Your task to perform on an android device: open sync settings in chrome Image 0: 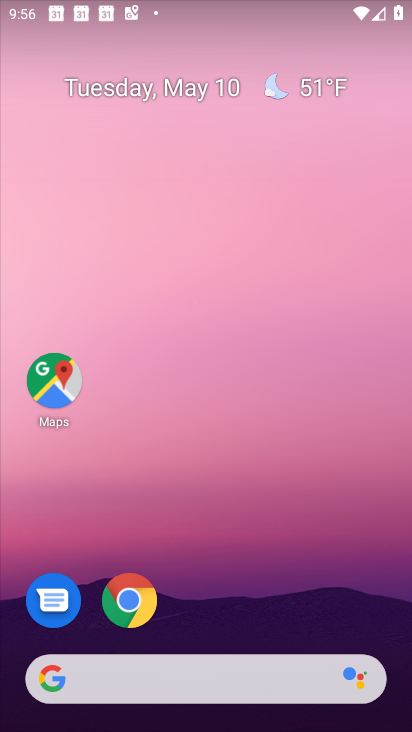
Step 0: click (132, 591)
Your task to perform on an android device: open sync settings in chrome Image 1: 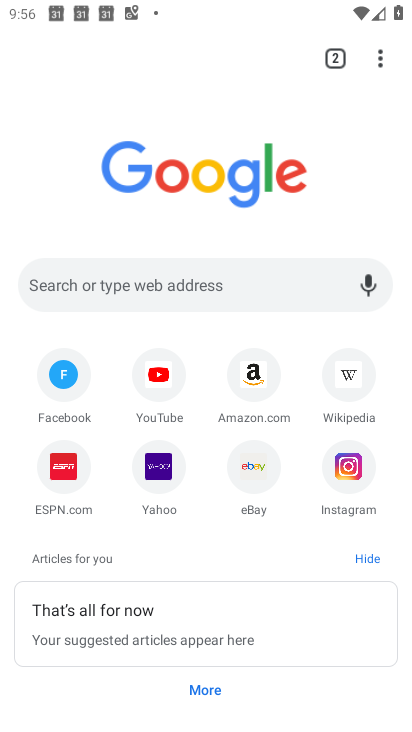
Step 1: click (378, 53)
Your task to perform on an android device: open sync settings in chrome Image 2: 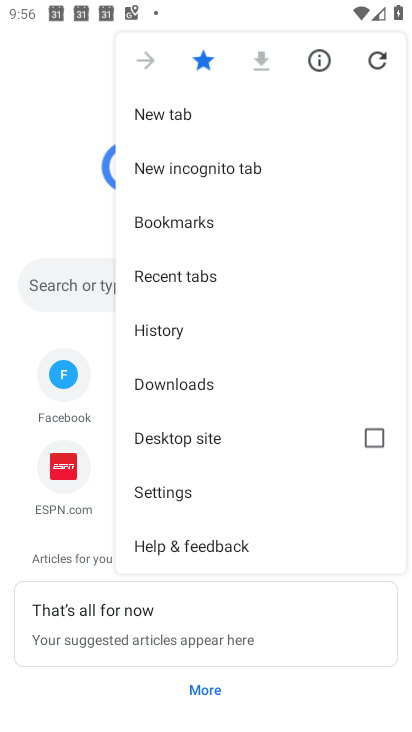
Step 2: click (142, 491)
Your task to perform on an android device: open sync settings in chrome Image 3: 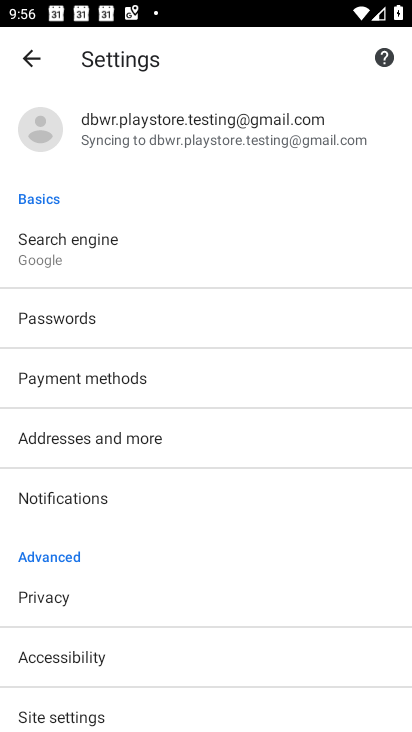
Step 3: click (148, 119)
Your task to perform on an android device: open sync settings in chrome Image 4: 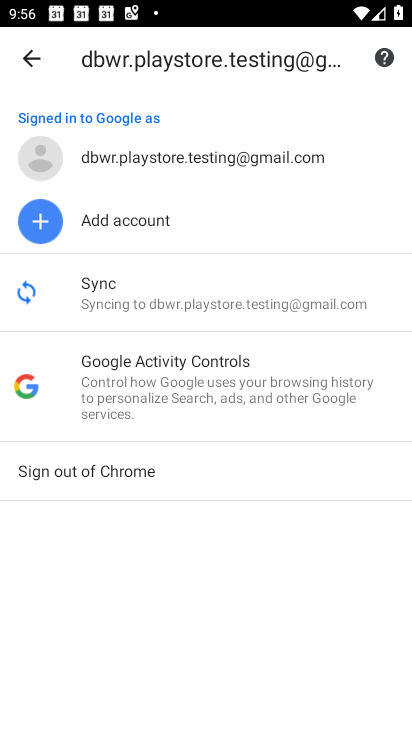
Step 4: click (86, 299)
Your task to perform on an android device: open sync settings in chrome Image 5: 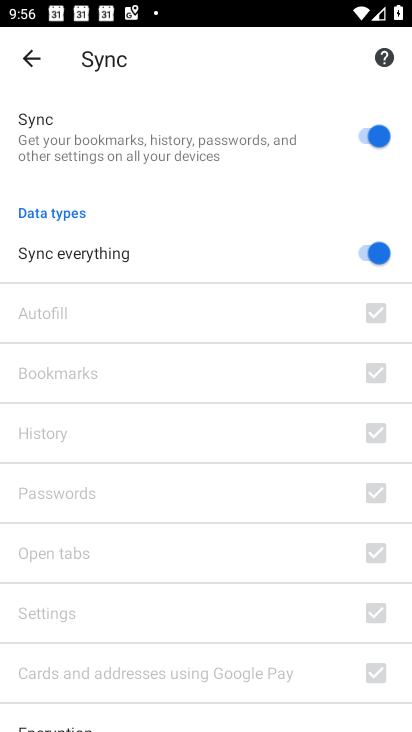
Step 5: task complete